Your task to perform on an android device: Go to battery settings Image 0: 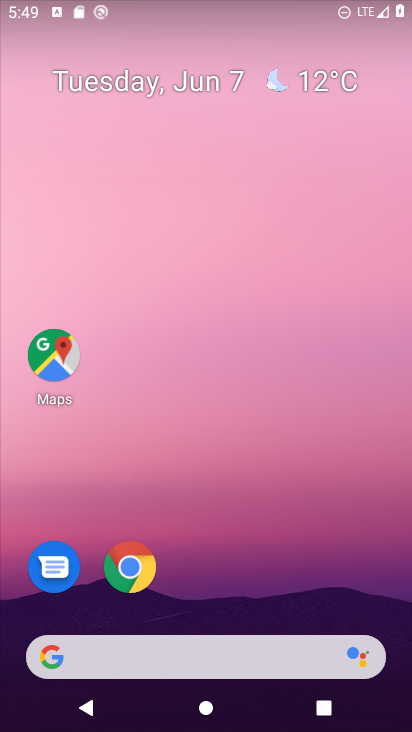
Step 0: drag from (203, 671) to (302, 59)
Your task to perform on an android device: Go to battery settings Image 1: 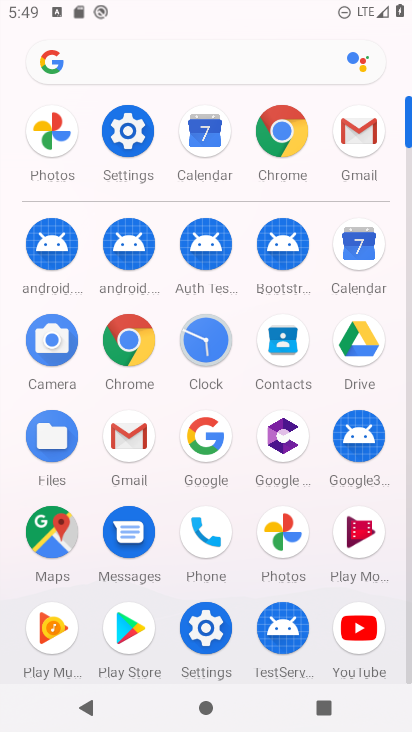
Step 1: click (134, 138)
Your task to perform on an android device: Go to battery settings Image 2: 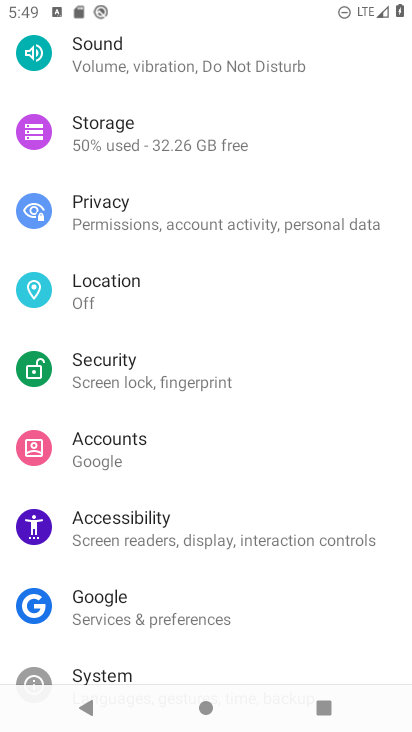
Step 2: drag from (140, 619) to (187, 641)
Your task to perform on an android device: Go to battery settings Image 3: 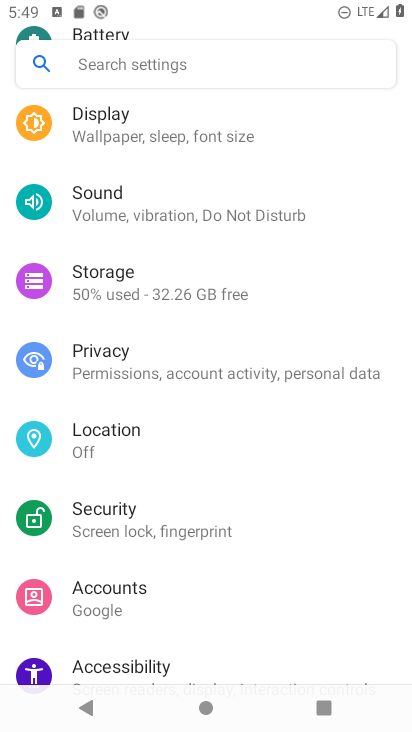
Step 3: drag from (213, 219) to (213, 665)
Your task to perform on an android device: Go to battery settings Image 4: 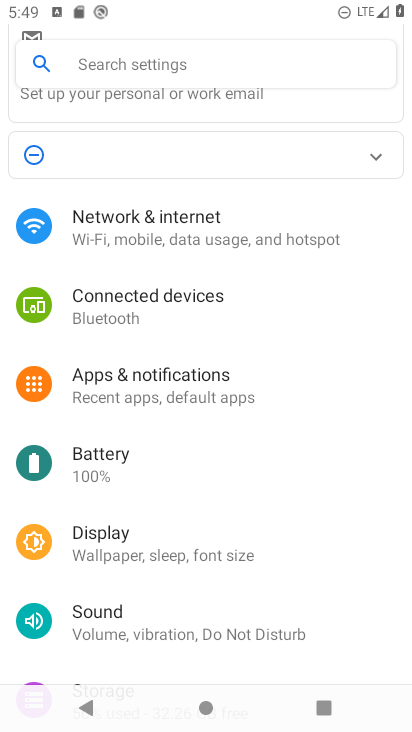
Step 4: click (116, 470)
Your task to perform on an android device: Go to battery settings Image 5: 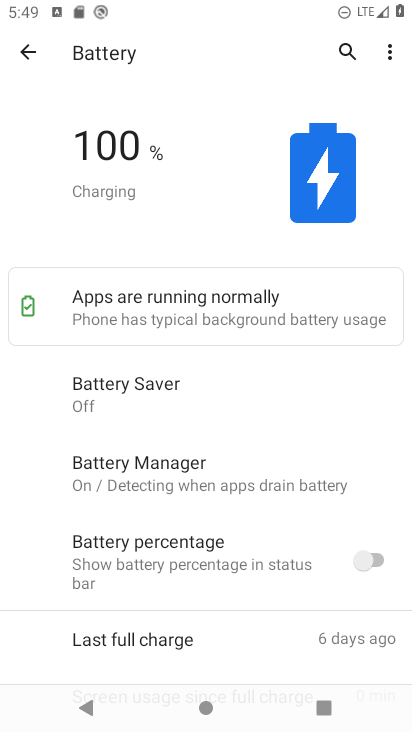
Step 5: task complete